Your task to perform on an android device: Is it going to rain tomorrow? Image 0: 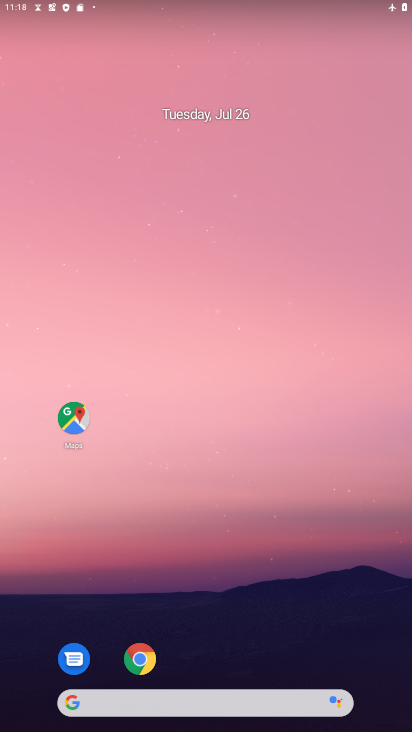
Step 0: drag from (170, 703) to (244, 68)
Your task to perform on an android device: Is it going to rain tomorrow? Image 1: 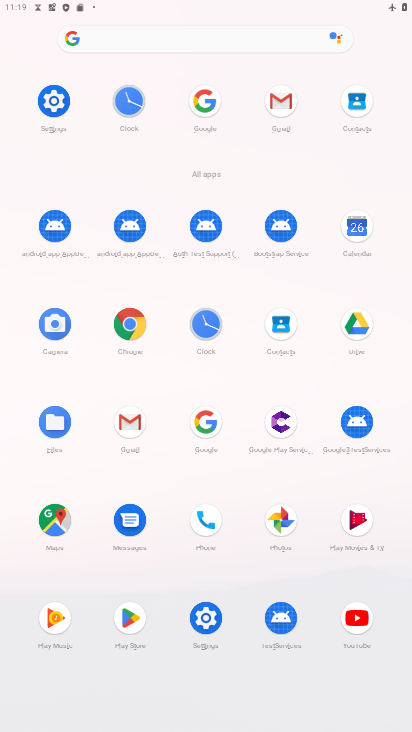
Step 1: click (203, 423)
Your task to perform on an android device: Is it going to rain tomorrow? Image 2: 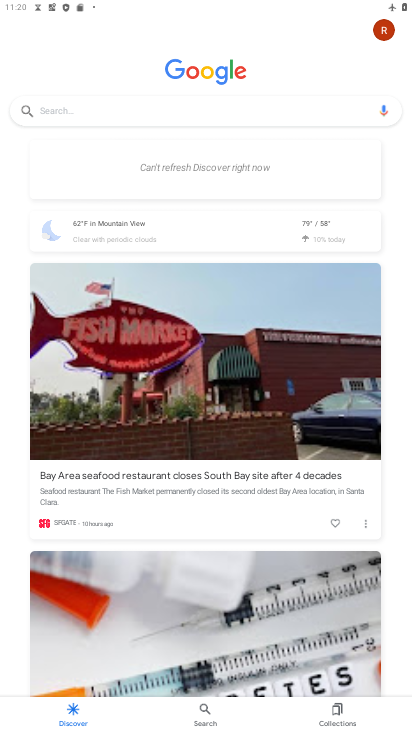
Step 2: click (149, 107)
Your task to perform on an android device: Is it going to rain tomorrow? Image 3: 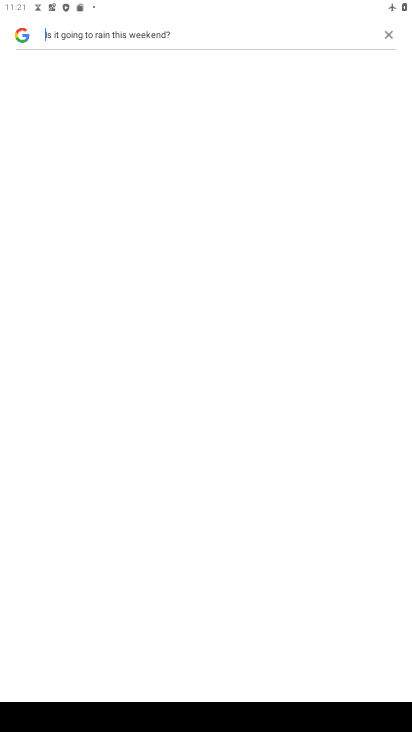
Step 3: task complete